Your task to perform on an android device: turn on the 24-hour format for clock Image 0: 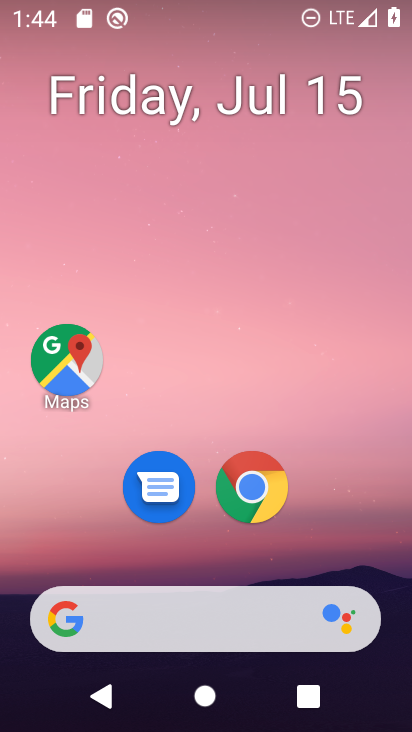
Step 0: drag from (168, 549) to (152, 342)
Your task to perform on an android device: turn on the 24-hour format for clock Image 1: 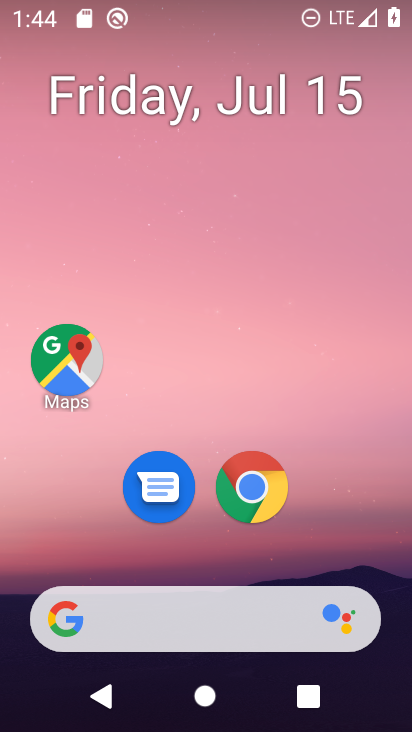
Step 1: drag from (231, 570) to (295, 216)
Your task to perform on an android device: turn on the 24-hour format for clock Image 2: 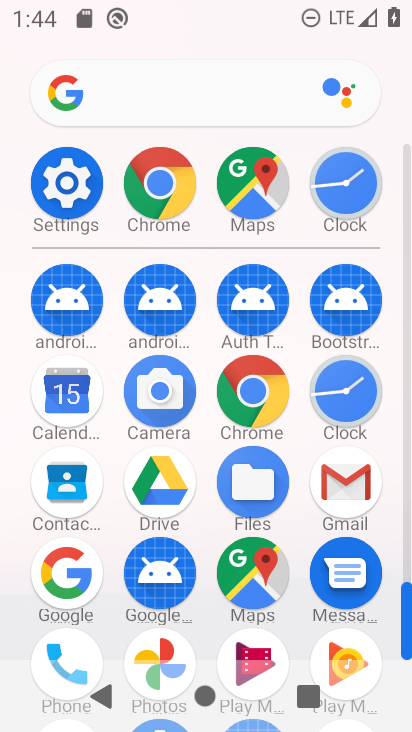
Step 2: click (354, 411)
Your task to perform on an android device: turn on the 24-hour format for clock Image 3: 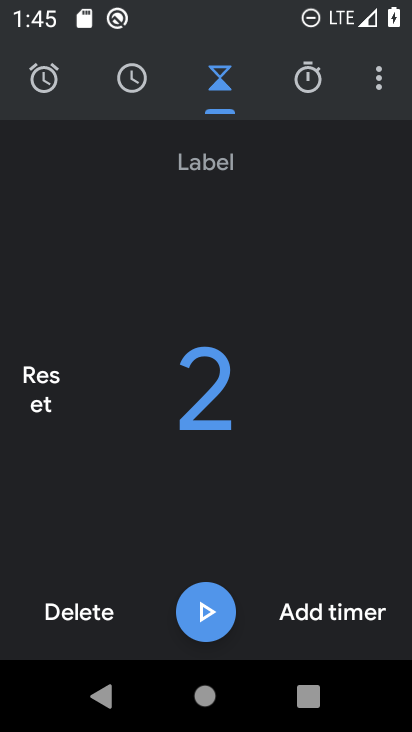
Step 3: click (377, 88)
Your task to perform on an android device: turn on the 24-hour format for clock Image 4: 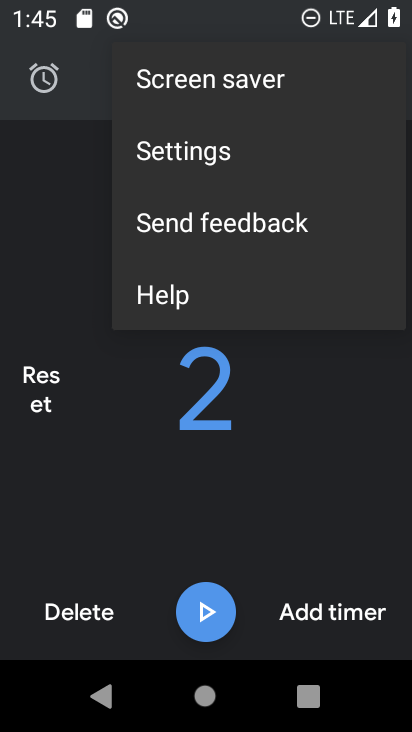
Step 4: click (196, 153)
Your task to perform on an android device: turn on the 24-hour format for clock Image 5: 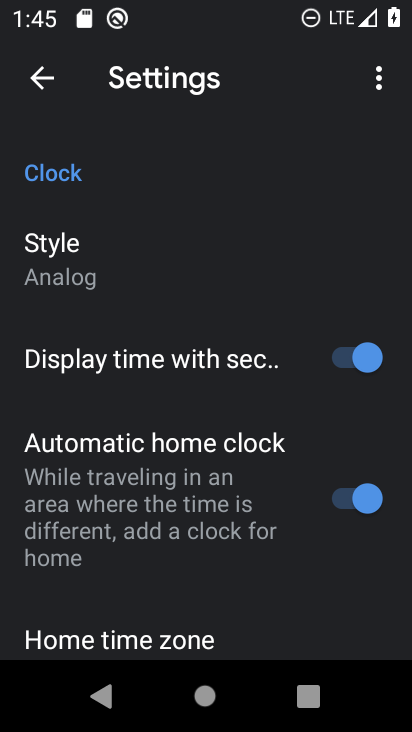
Step 5: drag from (182, 570) to (165, 339)
Your task to perform on an android device: turn on the 24-hour format for clock Image 6: 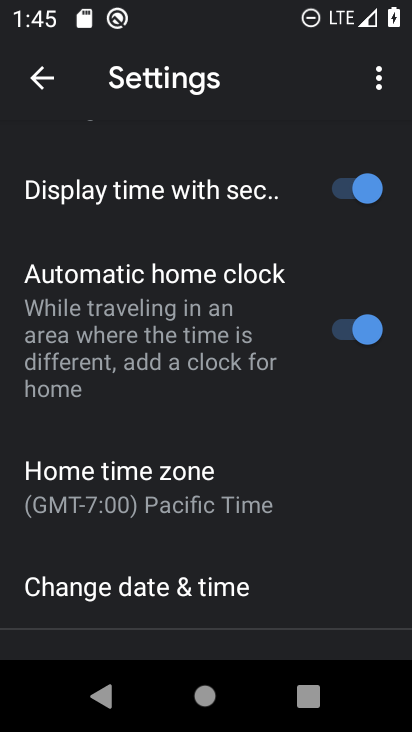
Step 6: click (147, 594)
Your task to perform on an android device: turn on the 24-hour format for clock Image 7: 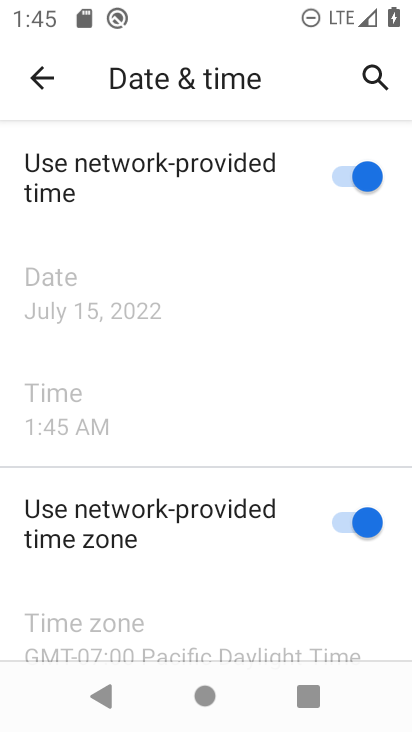
Step 7: task complete